Your task to perform on an android device: open chrome and create a bookmark for the current page Image 0: 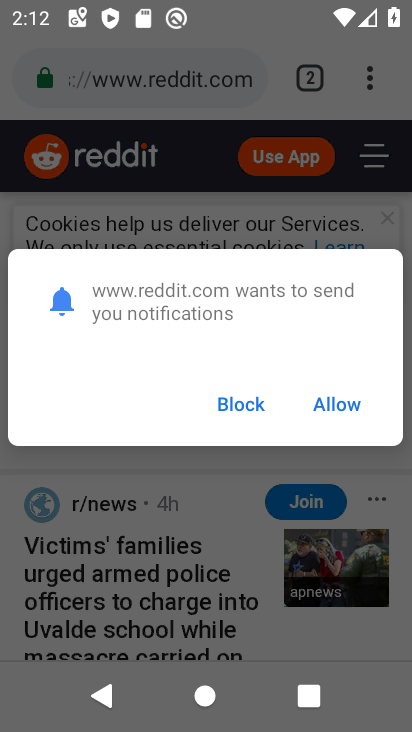
Step 0: press home button
Your task to perform on an android device: open chrome and create a bookmark for the current page Image 1: 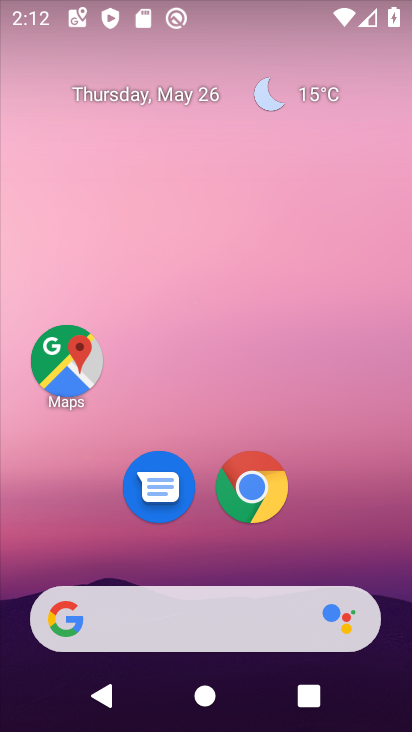
Step 1: click (247, 505)
Your task to perform on an android device: open chrome and create a bookmark for the current page Image 2: 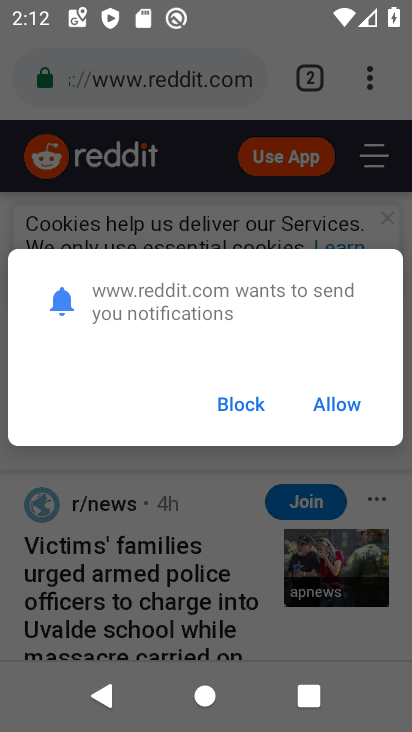
Step 2: click (313, 398)
Your task to perform on an android device: open chrome and create a bookmark for the current page Image 3: 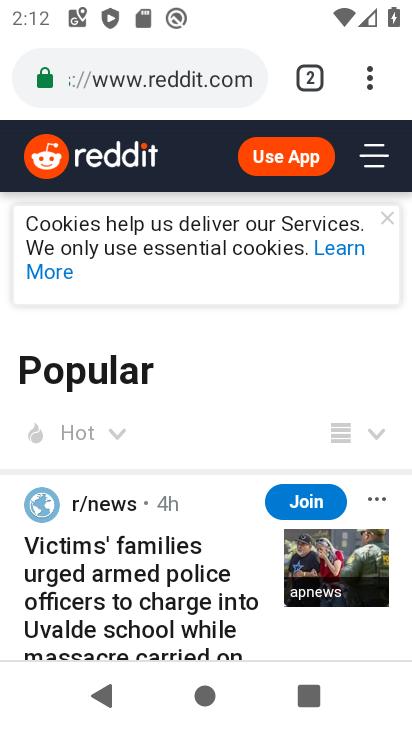
Step 3: click (313, 81)
Your task to perform on an android device: open chrome and create a bookmark for the current page Image 4: 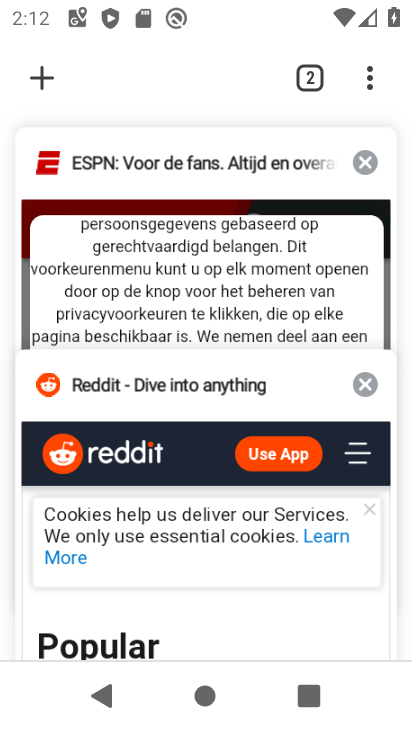
Step 4: click (197, 271)
Your task to perform on an android device: open chrome and create a bookmark for the current page Image 5: 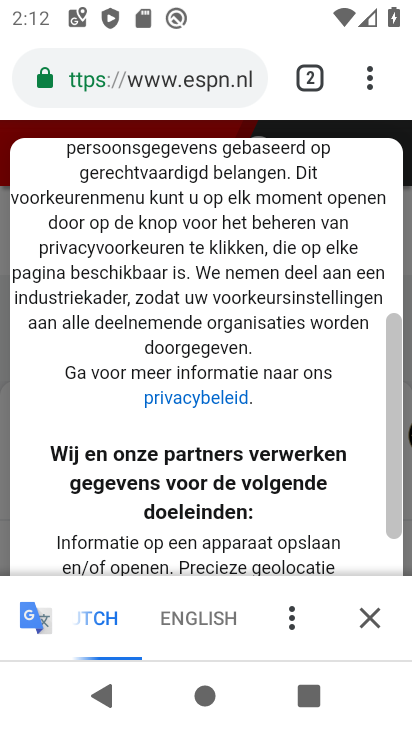
Step 5: click (304, 73)
Your task to perform on an android device: open chrome and create a bookmark for the current page Image 6: 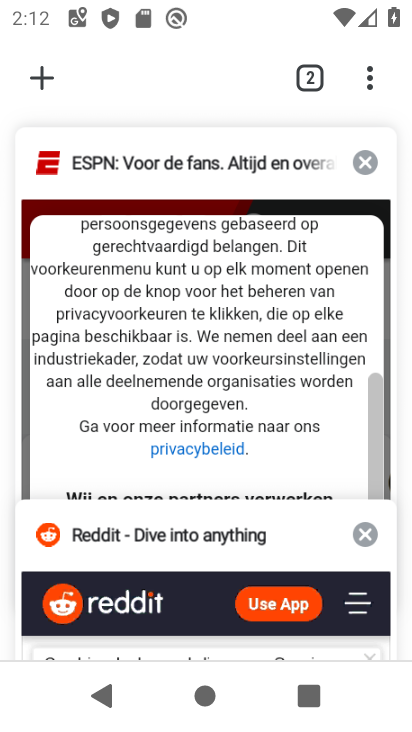
Step 6: click (156, 539)
Your task to perform on an android device: open chrome and create a bookmark for the current page Image 7: 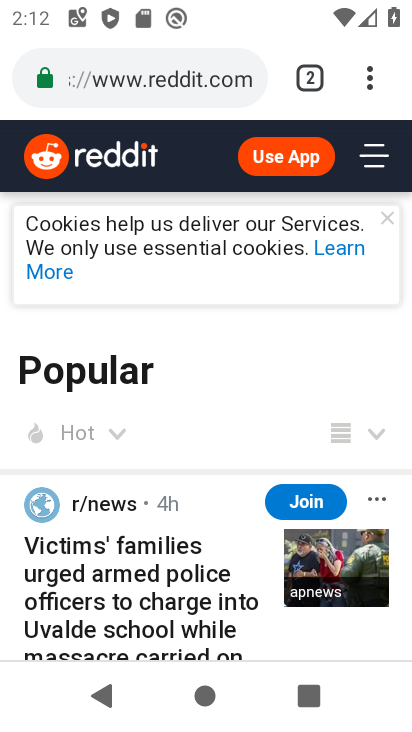
Step 7: click (374, 77)
Your task to perform on an android device: open chrome and create a bookmark for the current page Image 8: 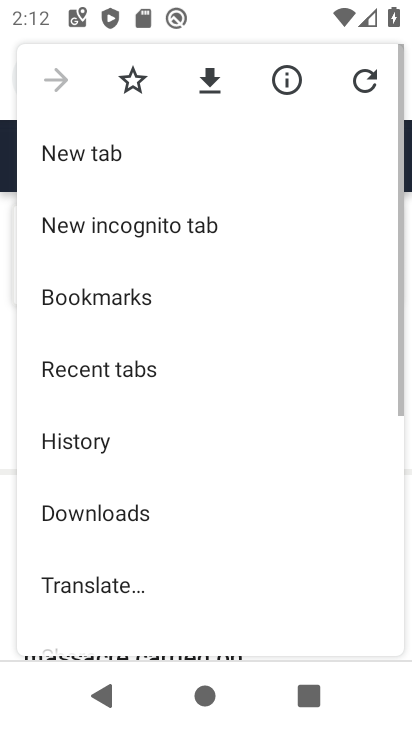
Step 8: click (131, 79)
Your task to perform on an android device: open chrome and create a bookmark for the current page Image 9: 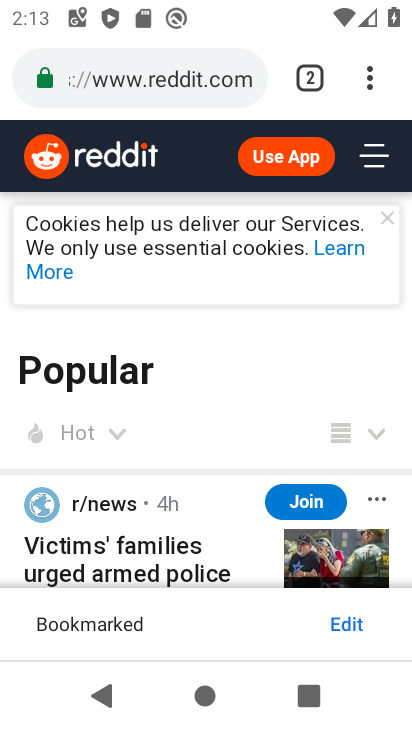
Step 9: task complete